Your task to perform on an android device: Show me recent news Image 0: 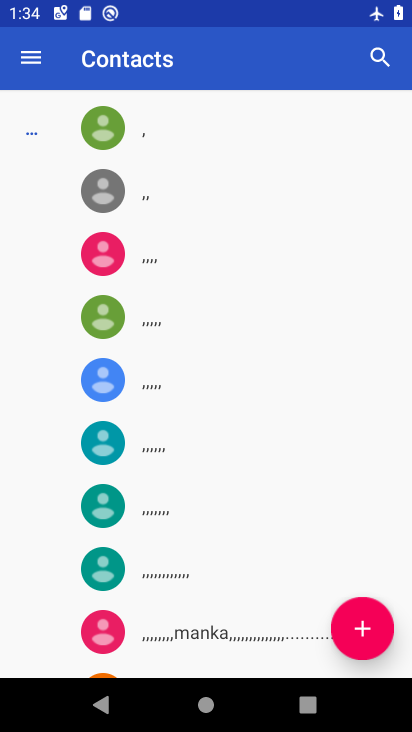
Step 0: press home button
Your task to perform on an android device: Show me recent news Image 1: 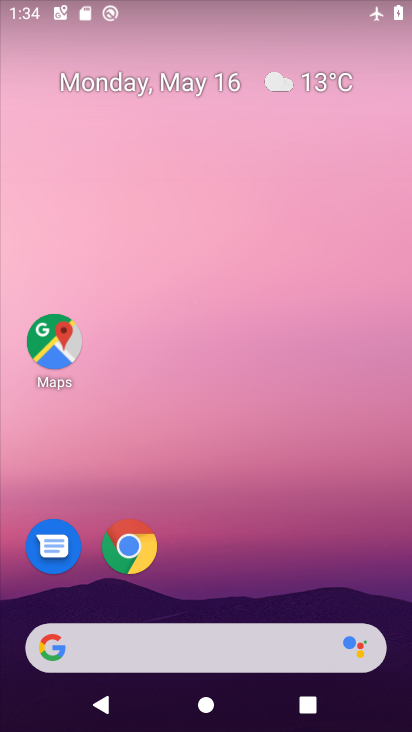
Step 1: task complete